Your task to perform on an android device: change notification settings in the gmail app Image 0: 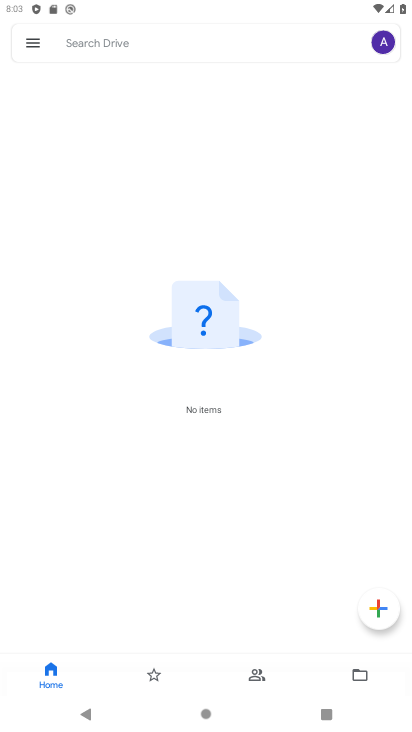
Step 0: press home button
Your task to perform on an android device: change notification settings in the gmail app Image 1: 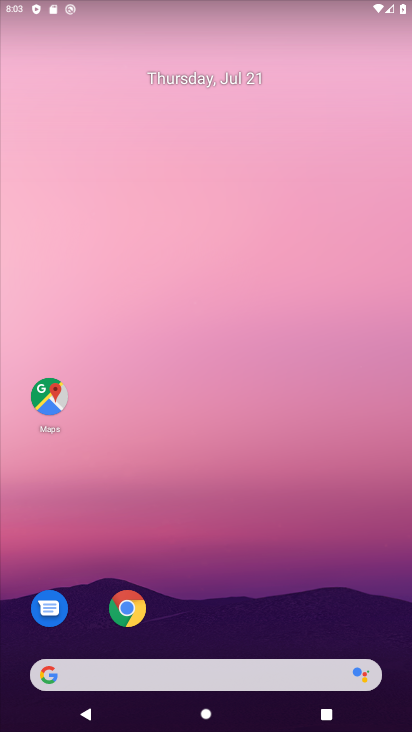
Step 1: drag from (19, 710) to (406, 36)
Your task to perform on an android device: change notification settings in the gmail app Image 2: 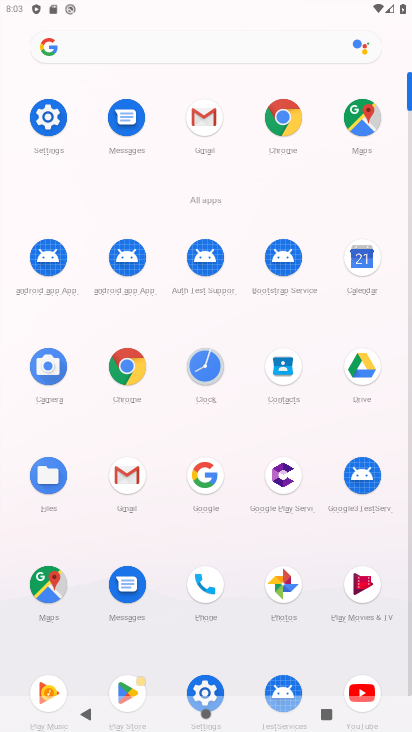
Step 2: click (132, 487)
Your task to perform on an android device: change notification settings in the gmail app Image 3: 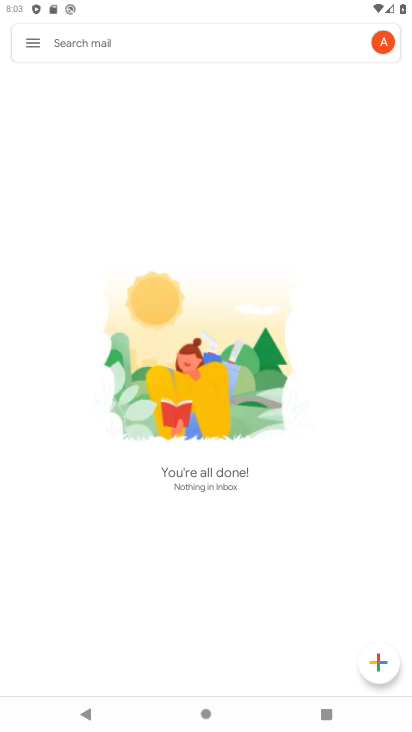
Step 3: click (37, 48)
Your task to perform on an android device: change notification settings in the gmail app Image 4: 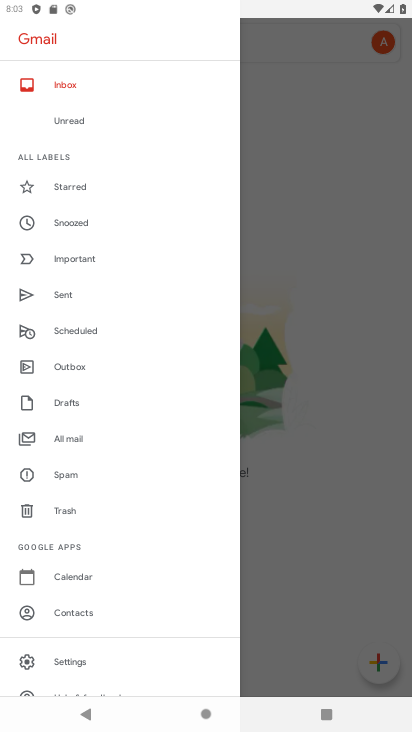
Step 4: click (56, 659)
Your task to perform on an android device: change notification settings in the gmail app Image 5: 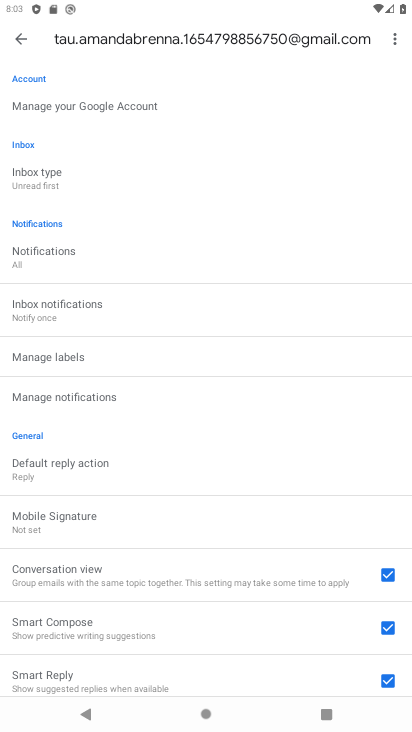
Step 5: click (30, 34)
Your task to perform on an android device: change notification settings in the gmail app Image 6: 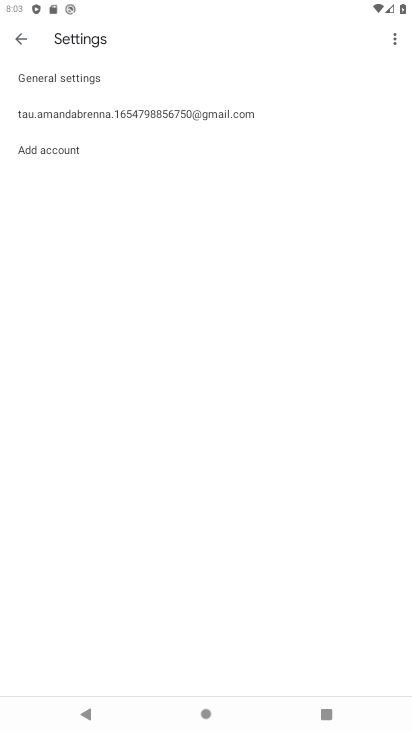
Step 6: click (53, 73)
Your task to perform on an android device: change notification settings in the gmail app Image 7: 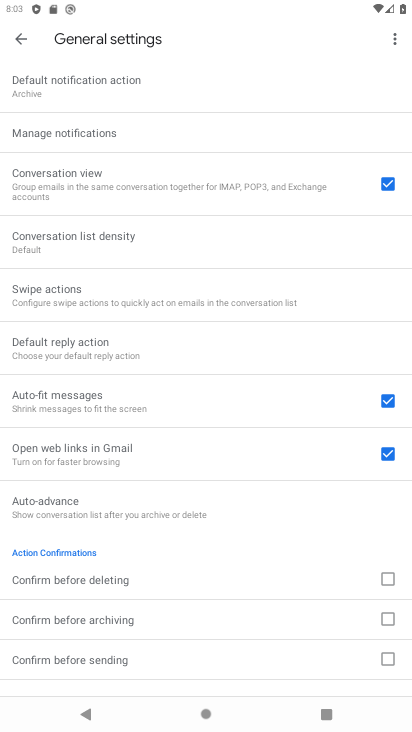
Step 7: click (23, 40)
Your task to perform on an android device: change notification settings in the gmail app Image 8: 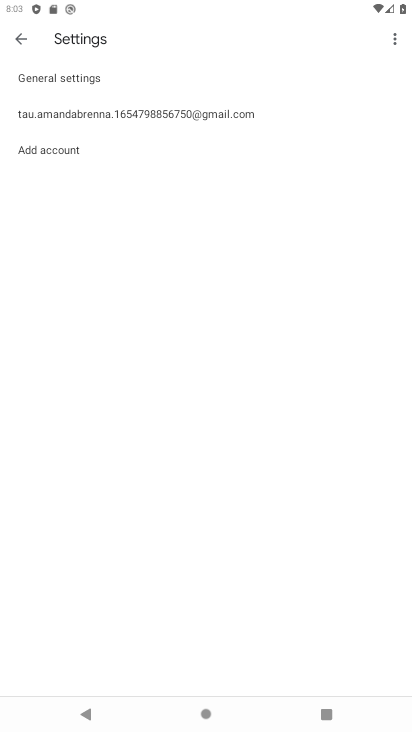
Step 8: click (114, 109)
Your task to perform on an android device: change notification settings in the gmail app Image 9: 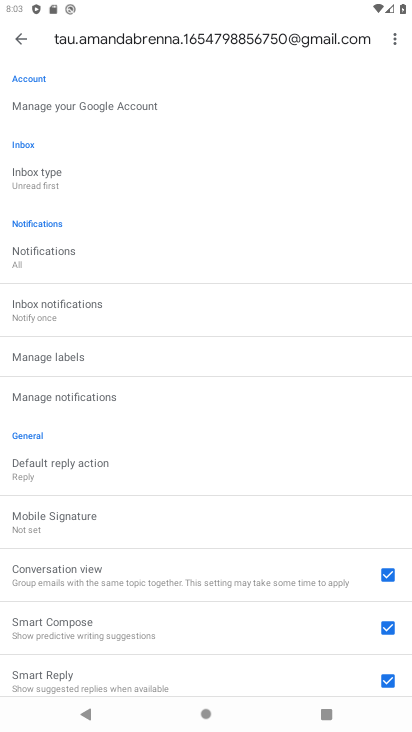
Step 9: click (80, 255)
Your task to perform on an android device: change notification settings in the gmail app Image 10: 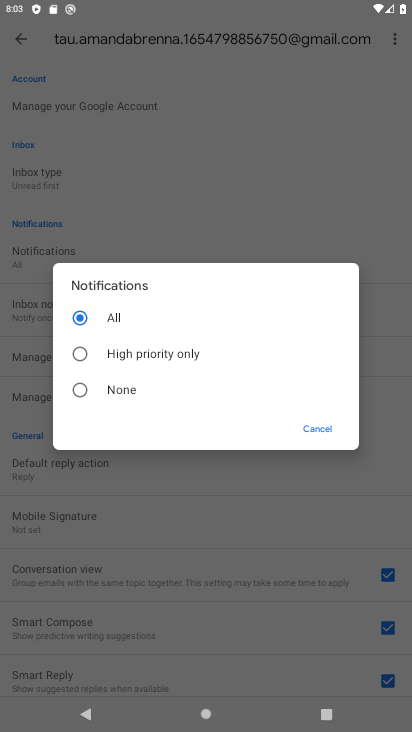
Step 10: task complete